Your task to perform on an android device: move an email to a new category in the gmail app Image 0: 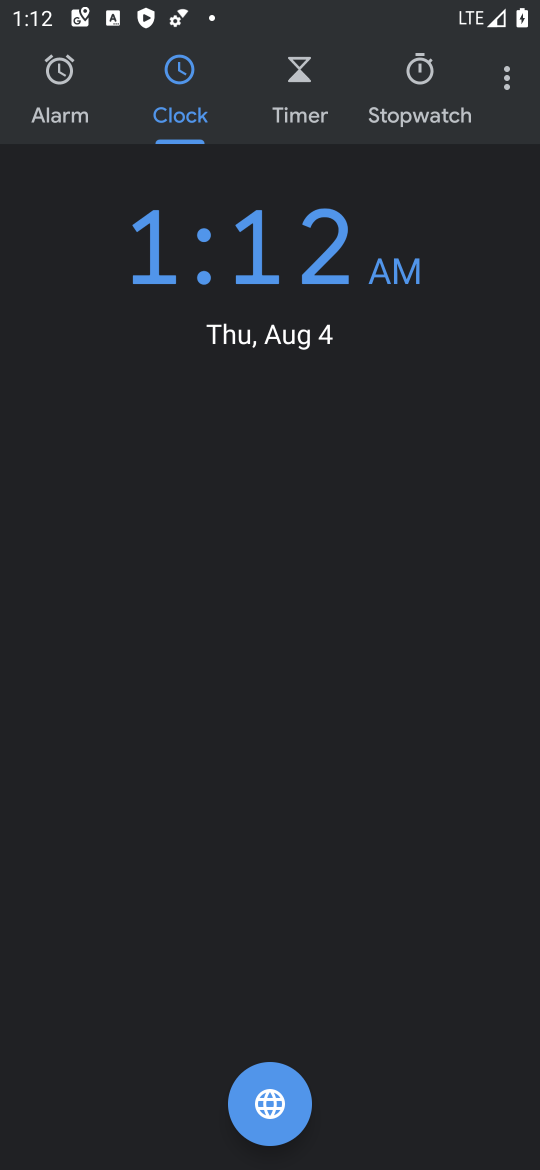
Step 0: press home button
Your task to perform on an android device: move an email to a new category in the gmail app Image 1: 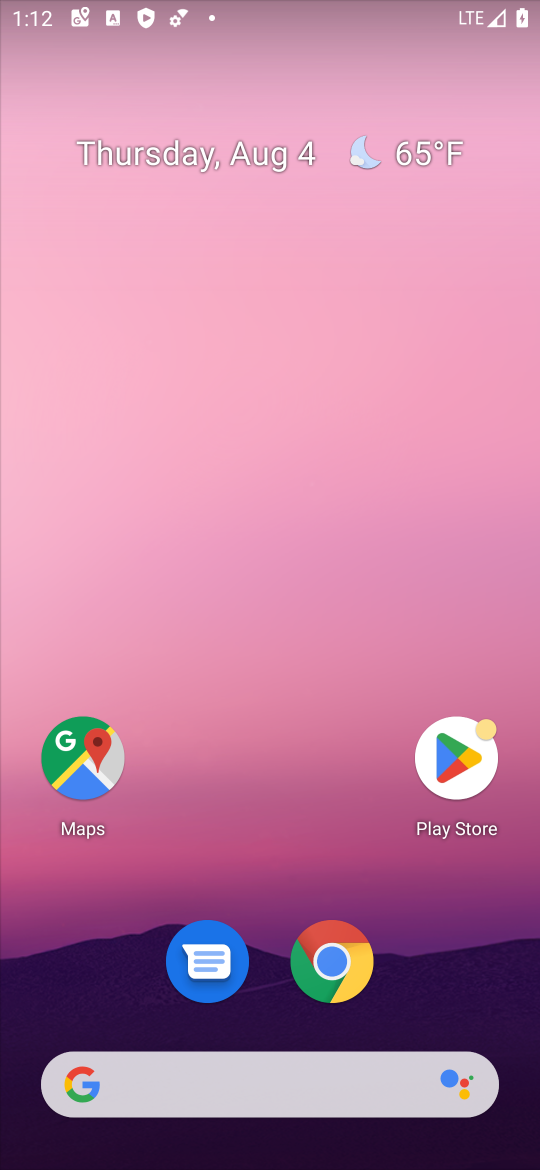
Step 1: drag from (284, 847) to (416, 0)
Your task to perform on an android device: move an email to a new category in the gmail app Image 2: 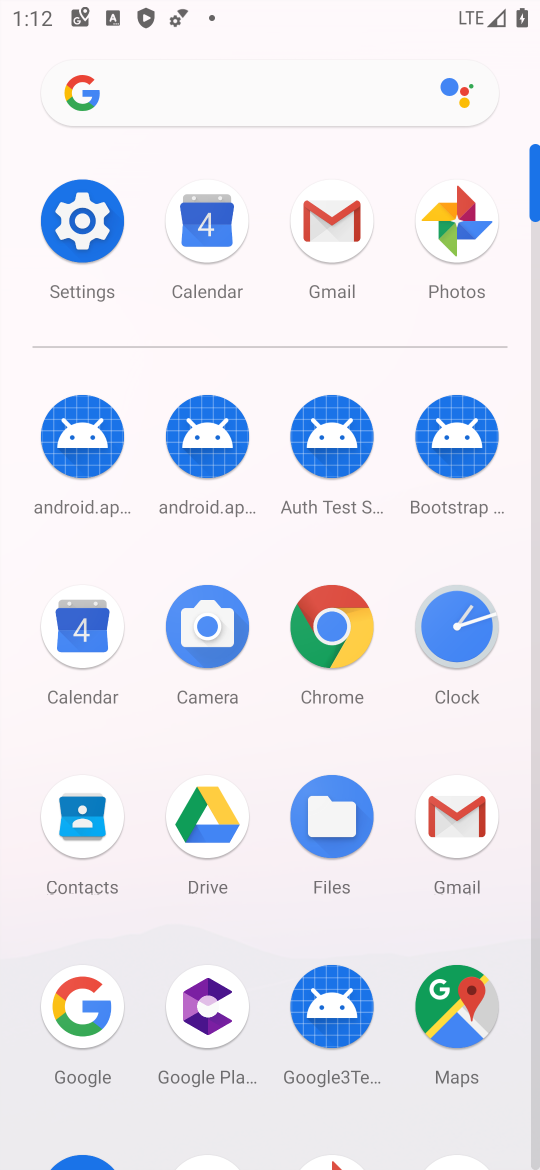
Step 2: click (337, 228)
Your task to perform on an android device: move an email to a new category in the gmail app Image 3: 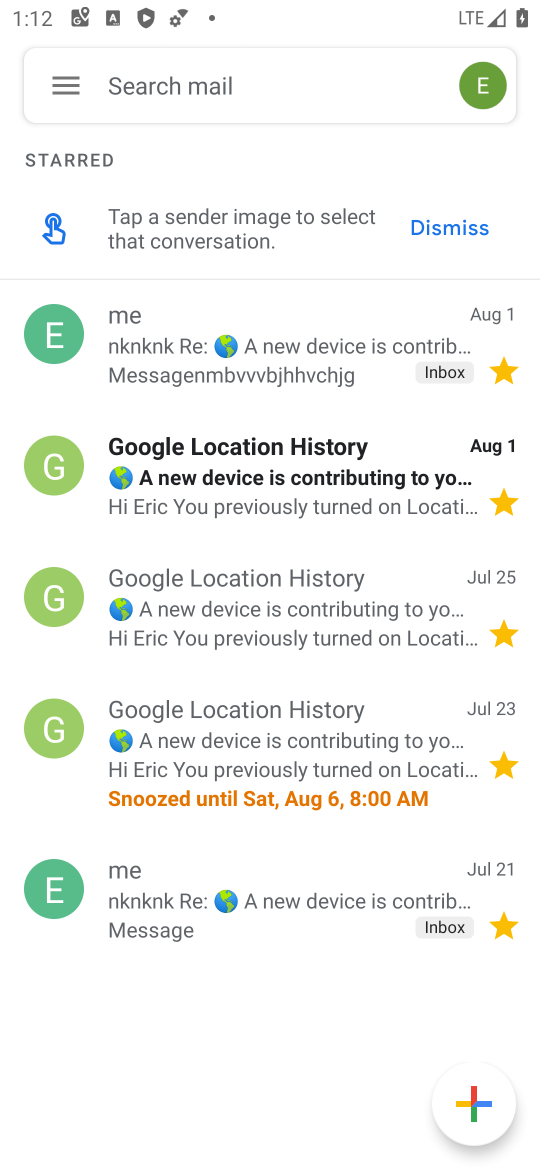
Step 3: click (274, 343)
Your task to perform on an android device: move an email to a new category in the gmail app Image 4: 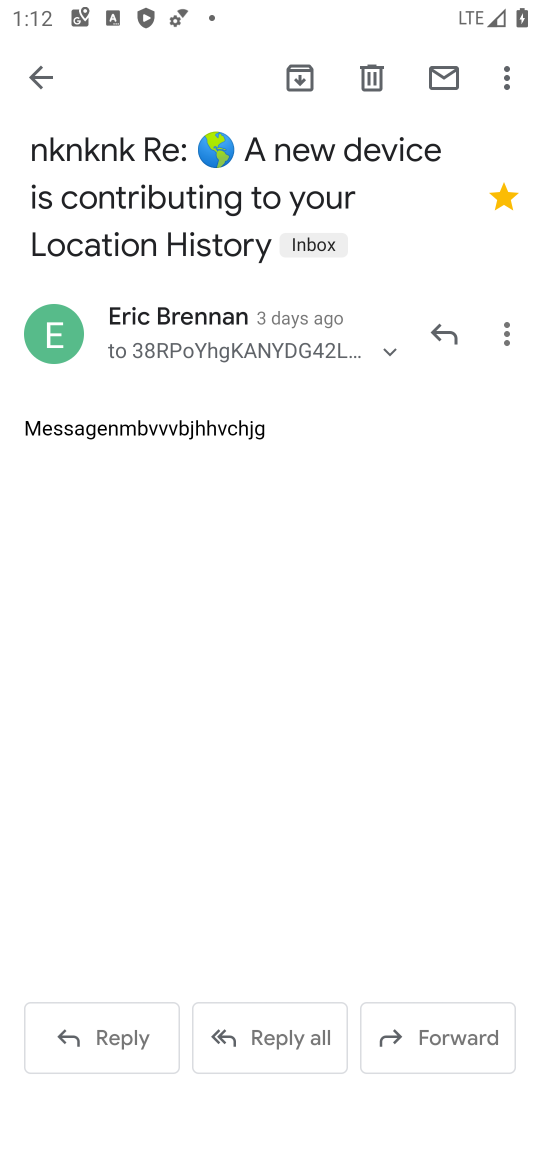
Step 4: click (506, 76)
Your task to perform on an android device: move an email to a new category in the gmail app Image 5: 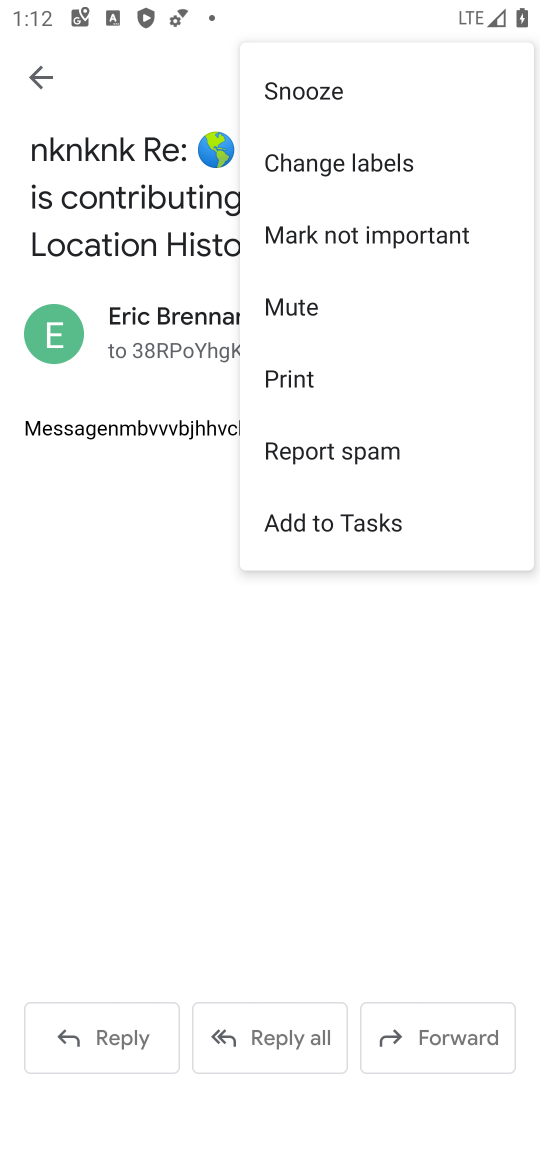
Step 5: click (312, 306)
Your task to perform on an android device: move an email to a new category in the gmail app Image 6: 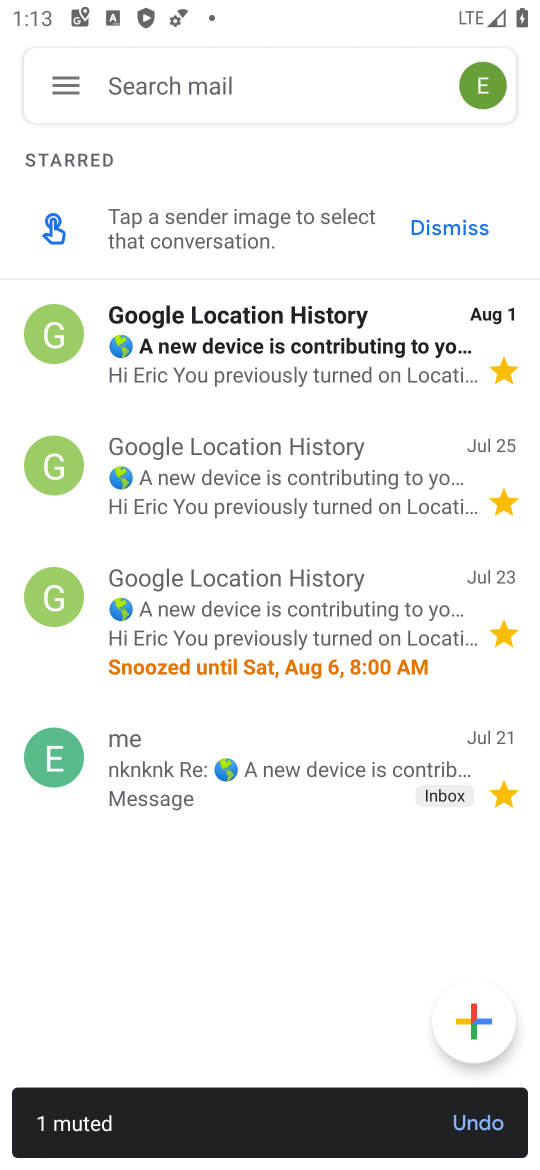
Step 6: task complete